Your task to perform on an android device: Show the shopping cart on walmart.com. Image 0: 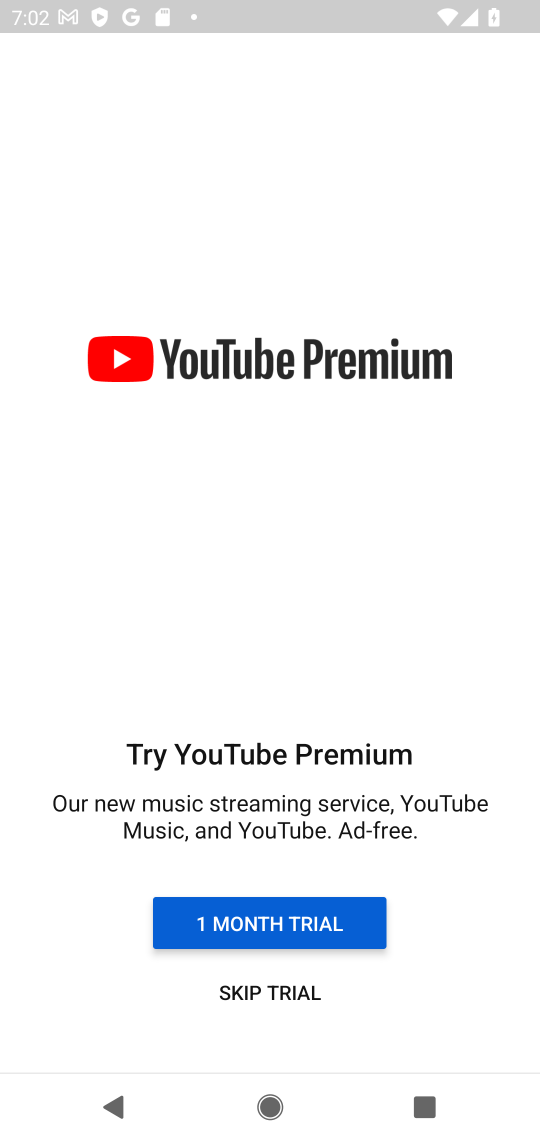
Step 0: press home button
Your task to perform on an android device: Show the shopping cart on walmart.com. Image 1: 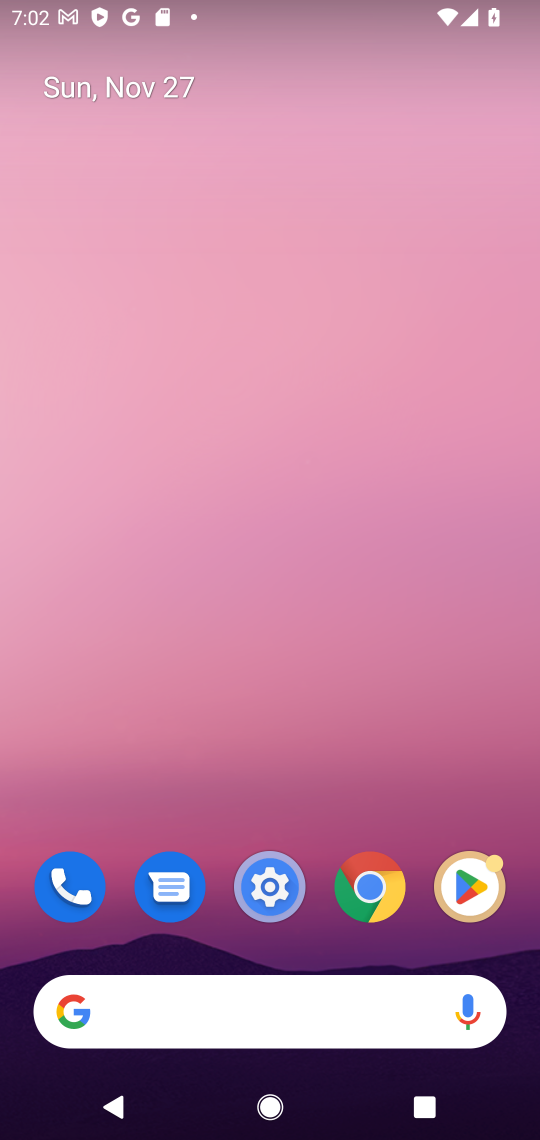
Step 1: click (216, 1017)
Your task to perform on an android device: Show the shopping cart on walmart.com. Image 2: 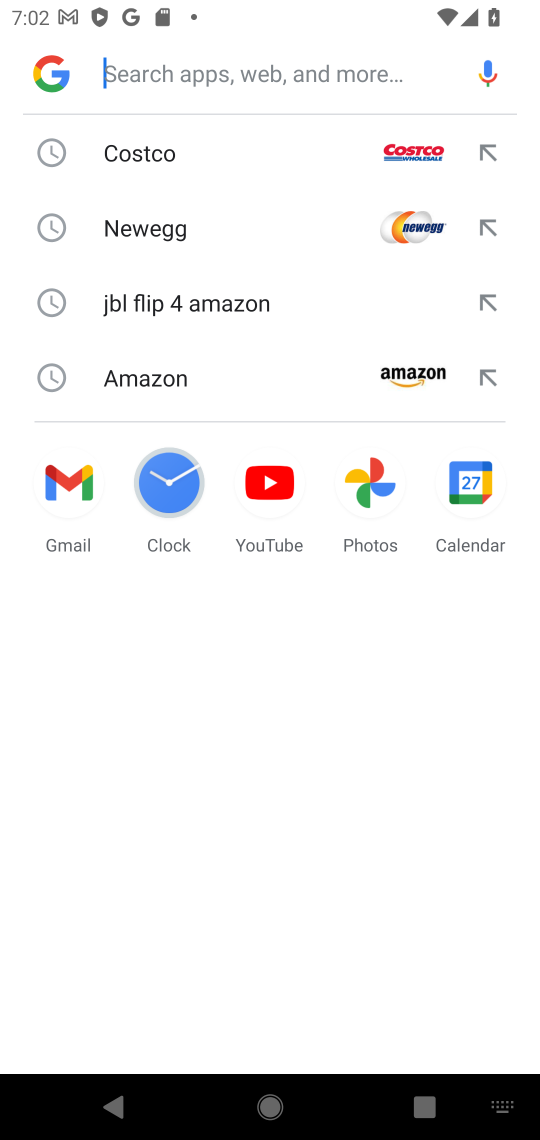
Step 2: type "walmart"
Your task to perform on an android device: Show the shopping cart on walmart.com. Image 3: 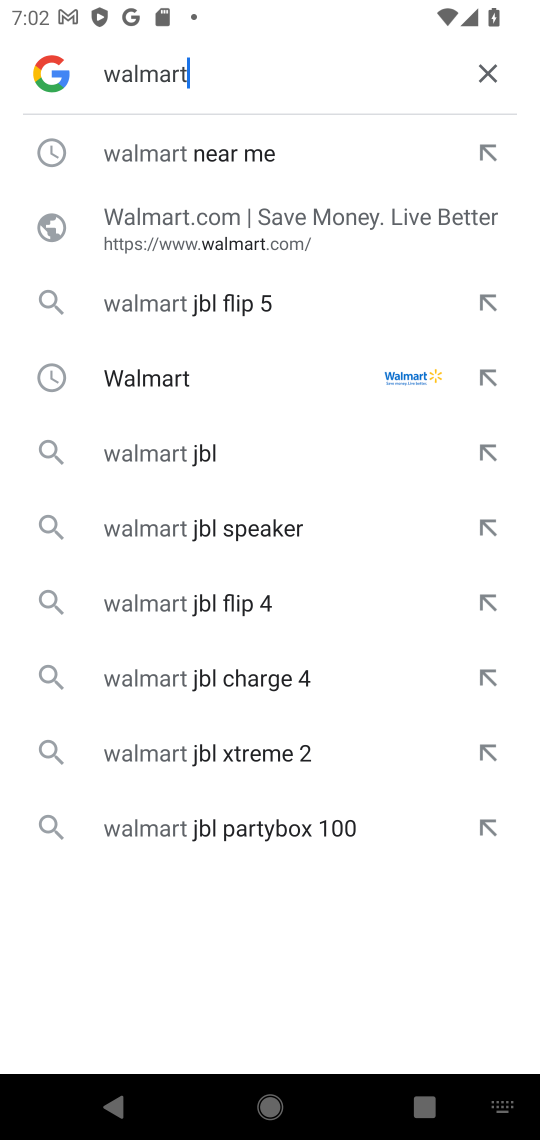
Step 3: click (223, 251)
Your task to perform on an android device: Show the shopping cart on walmart.com. Image 4: 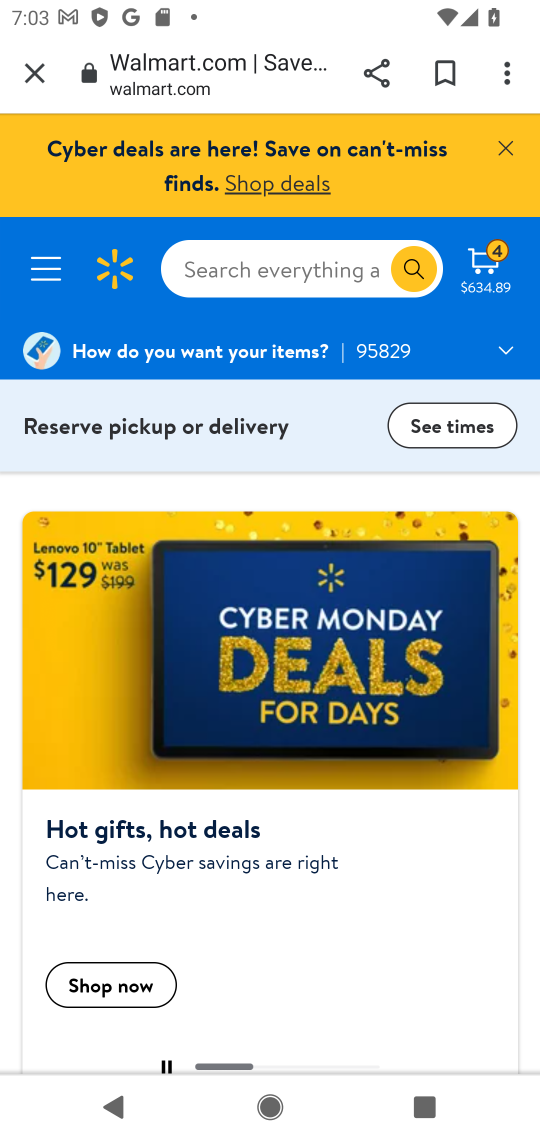
Step 4: click (227, 263)
Your task to perform on an android device: Show the shopping cart on walmart.com. Image 5: 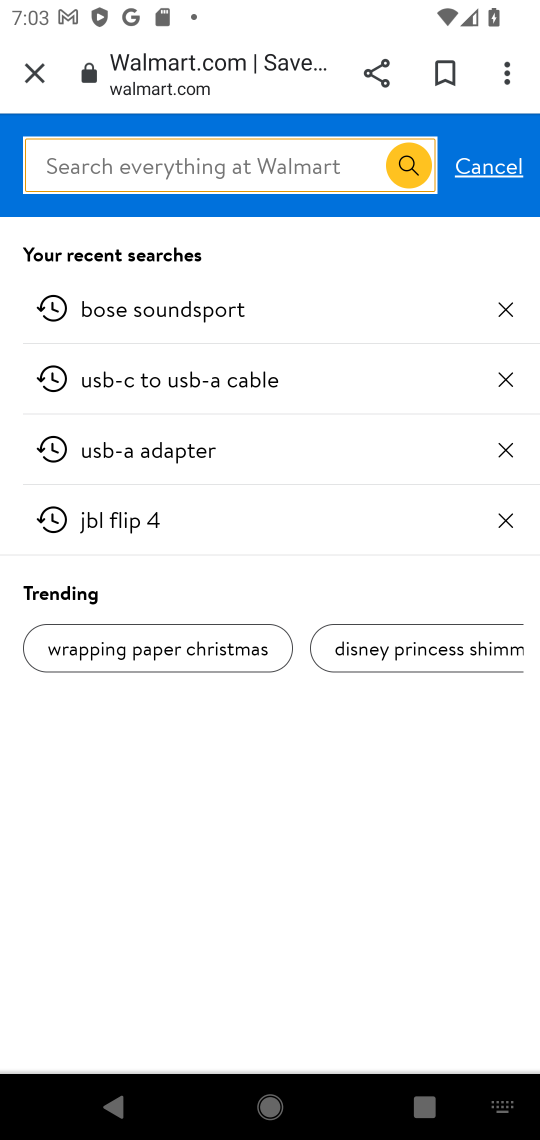
Step 5: click (463, 159)
Your task to perform on an android device: Show the shopping cart on walmart.com. Image 6: 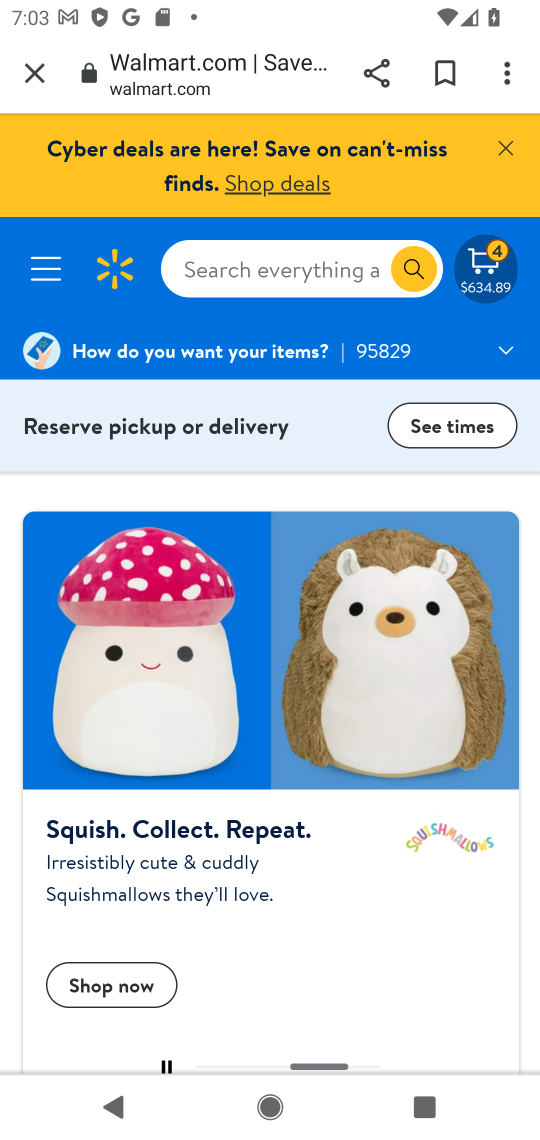
Step 6: click (491, 268)
Your task to perform on an android device: Show the shopping cart on walmart.com. Image 7: 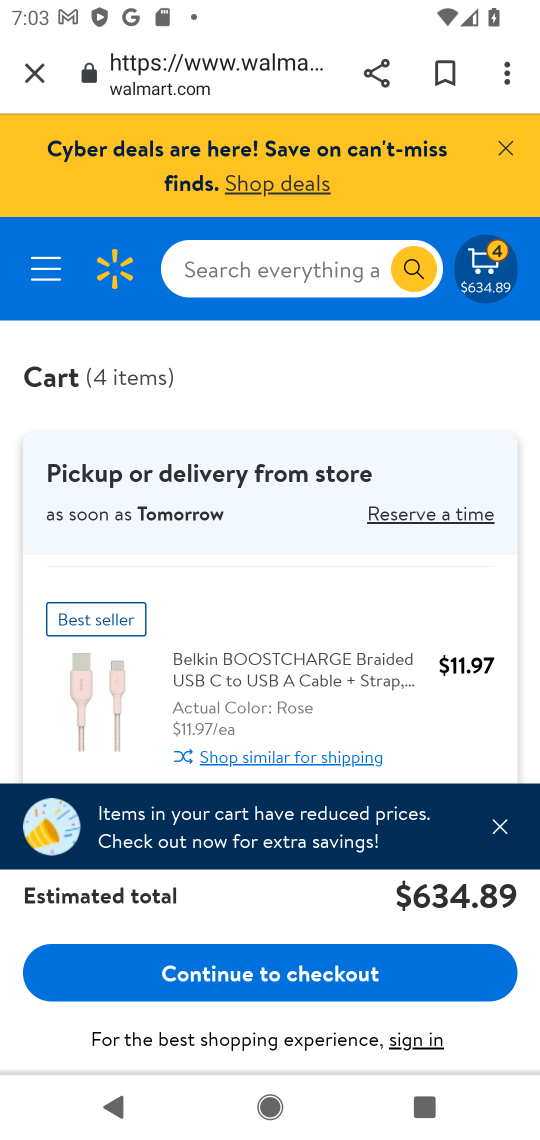
Step 7: click (484, 843)
Your task to perform on an android device: Show the shopping cart on walmart.com. Image 8: 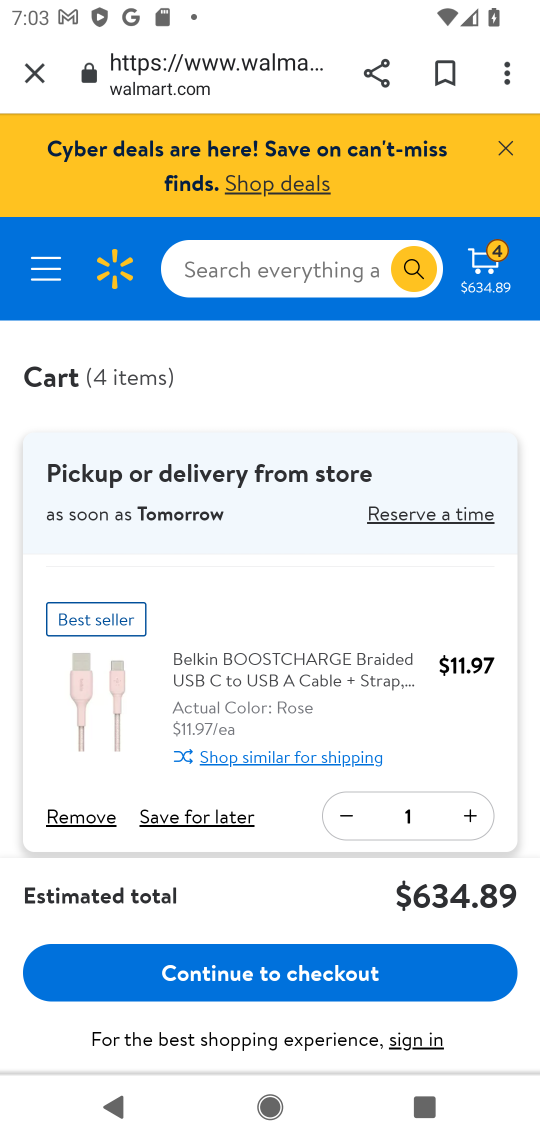
Step 8: click (343, 823)
Your task to perform on an android device: Show the shopping cart on walmart.com. Image 9: 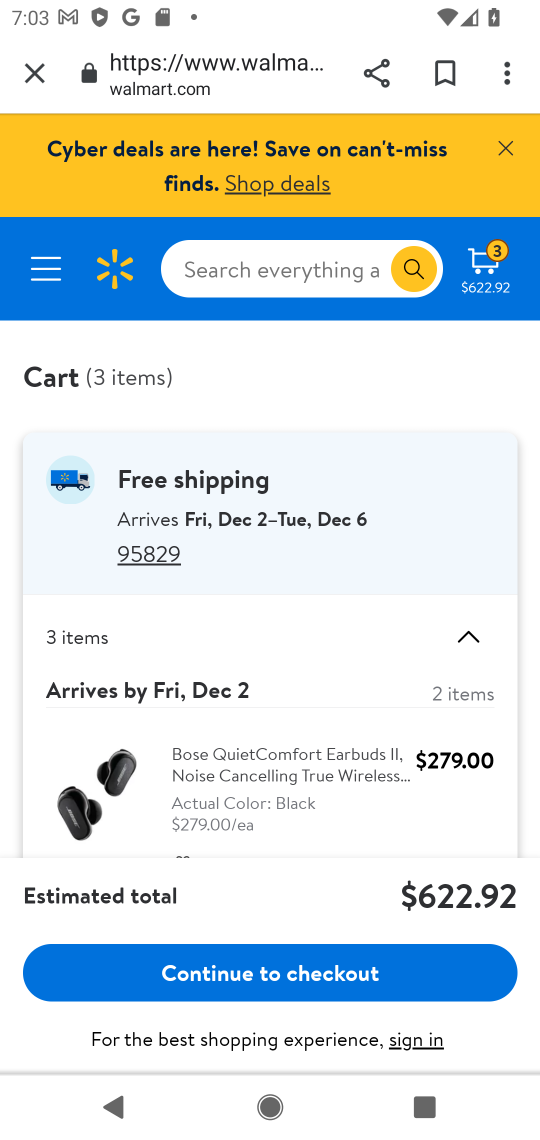
Step 9: drag from (315, 643) to (317, 370)
Your task to perform on an android device: Show the shopping cart on walmart.com. Image 10: 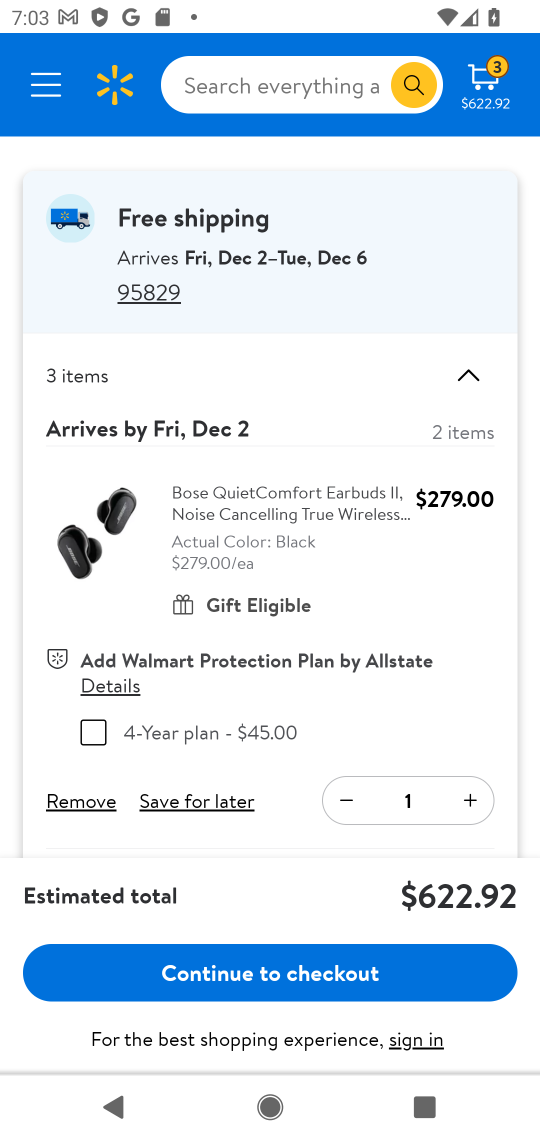
Step 10: click (350, 789)
Your task to perform on an android device: Show the shopping cart on walmart.com. Image 11: 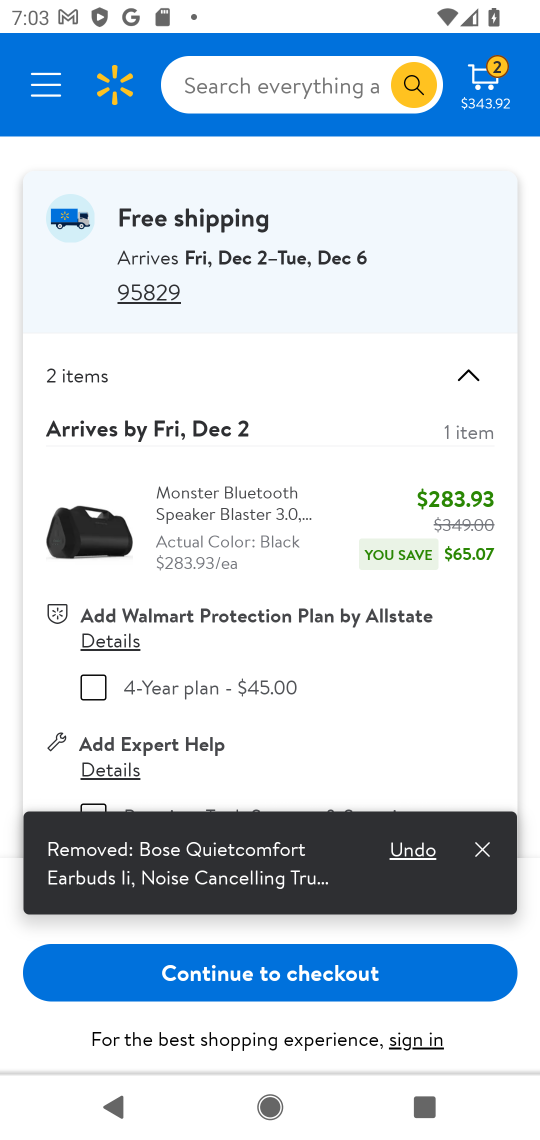
Step 11: click (489, 858)
Your task to perform on an android device: Show the shopping cart on walmart.com. Image 12: 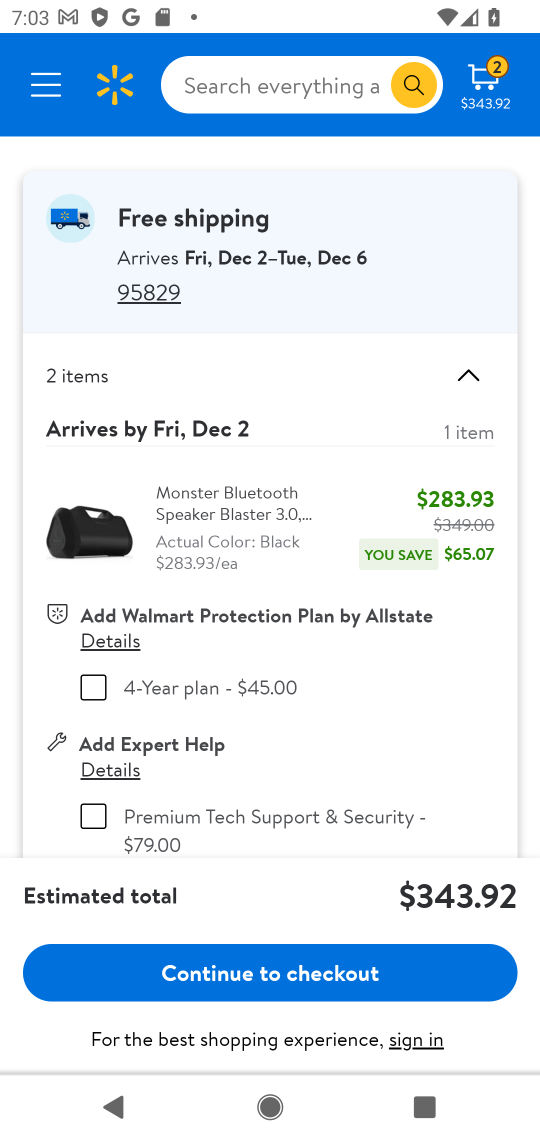
Step 12: drag from (353, 770) to (347, 506)
Your task to perform on an android device: Show the shopping cart on walmart.com. Image 13: 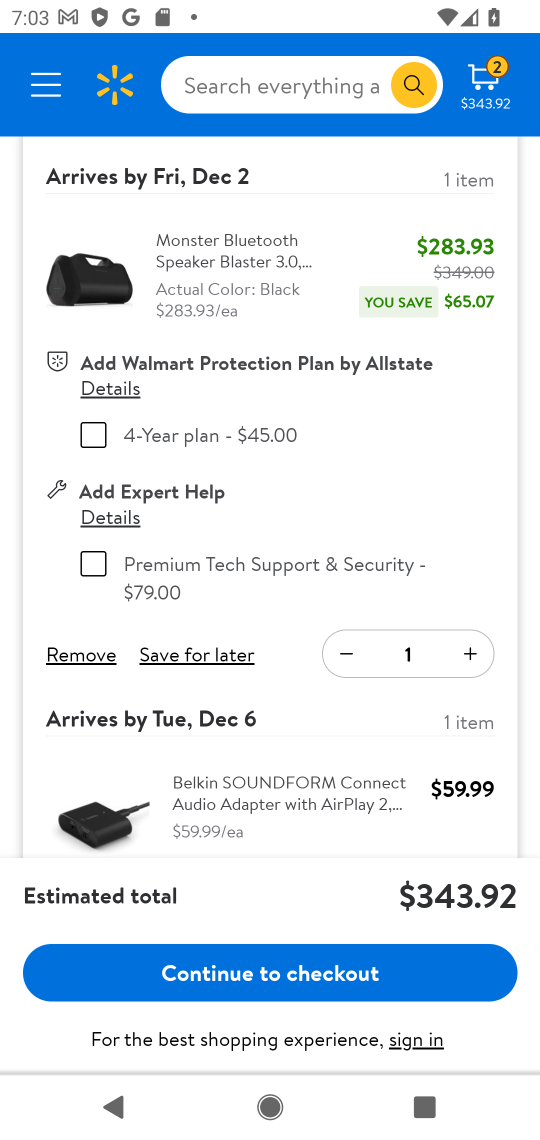
Step 13: click (72, 654)
Your task to perform on an android device: Show the shopping cart on walmart.com. Image 14: 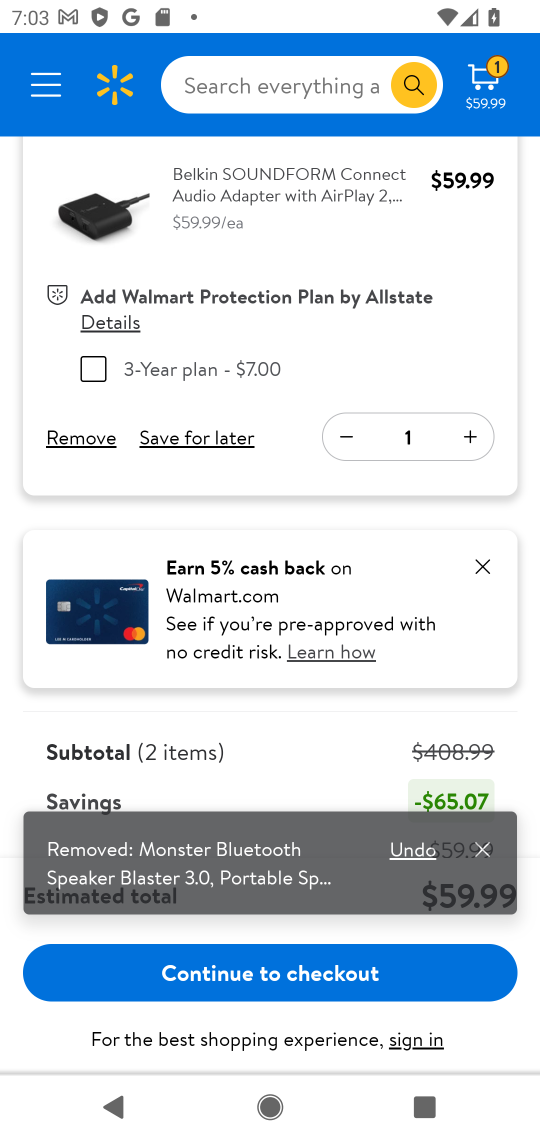
Step 14: click (86, 434)
Your task to perform on an android device: Show the shopping cart on walmart.com. Image 15: 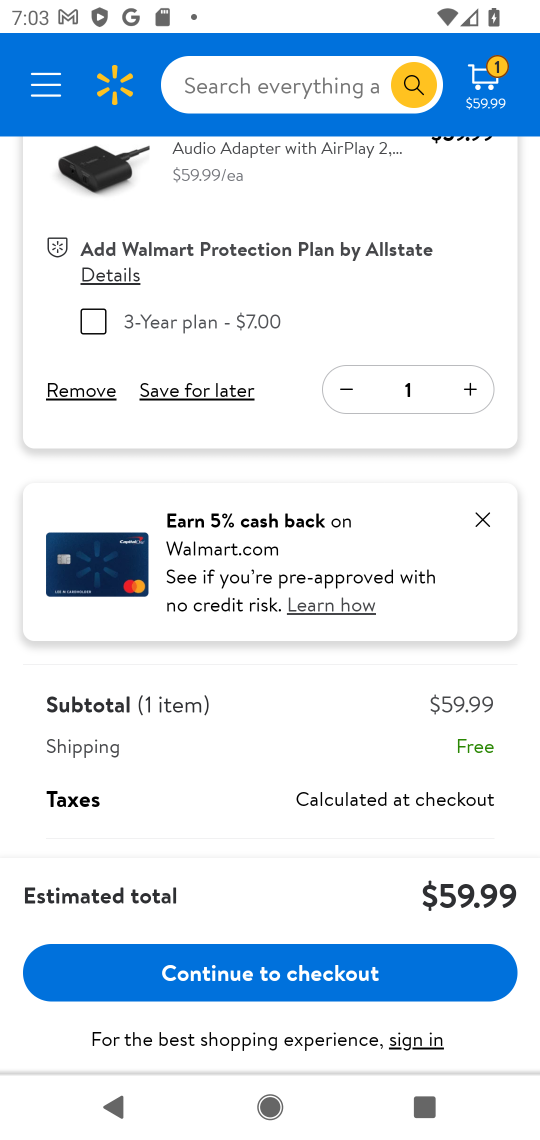
Step 15: click (75, 390)
Your task to perform on an android device: Show the shopping cart on walmart.com. Image 16: 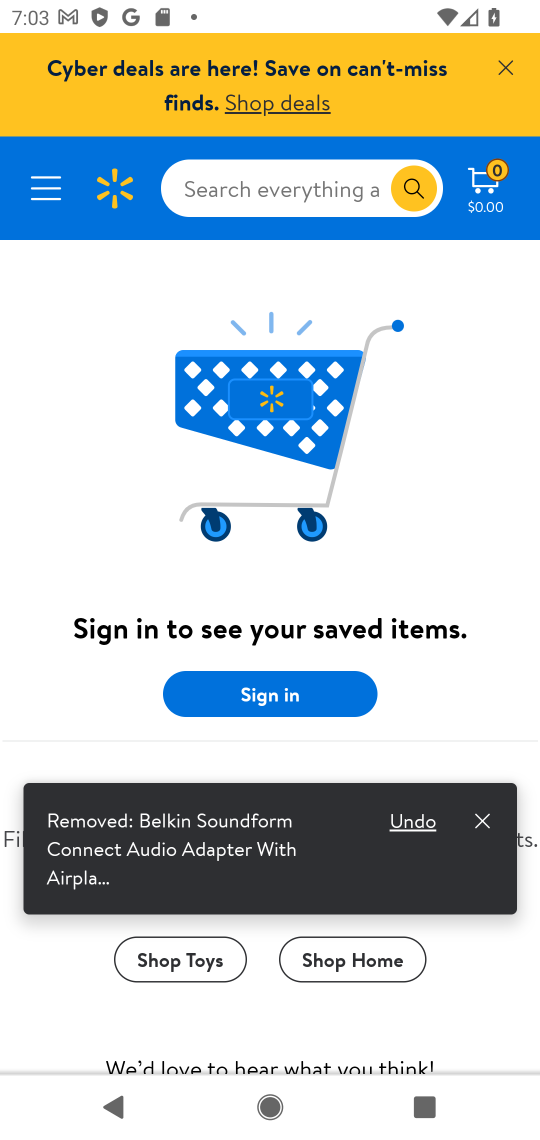
Step 16: task complete